Your task to perform on an android device: Go to CNN.com Image 0: 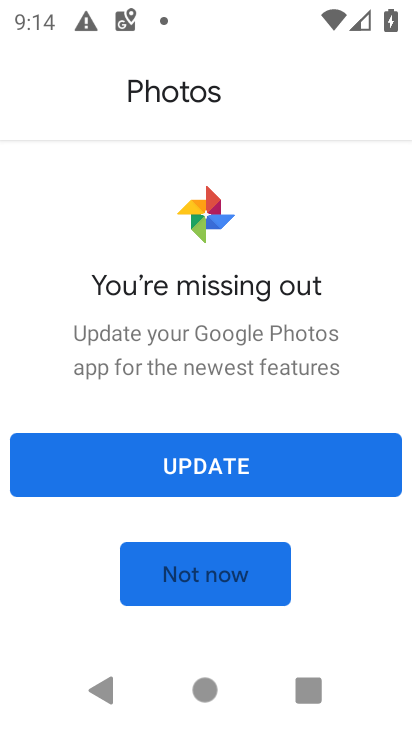
Step 0: press home button
Your task to perform on an android device: Go to CNN.com Image 1: 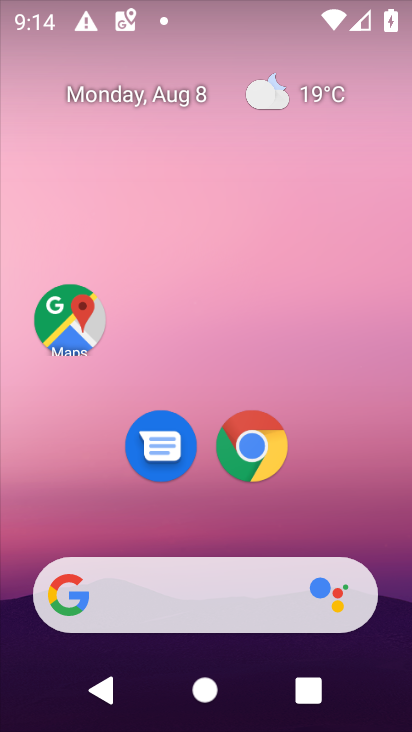
Step 1: click (253, 435)
Your task to perform on an android device: Go to CNN.com Image 2: 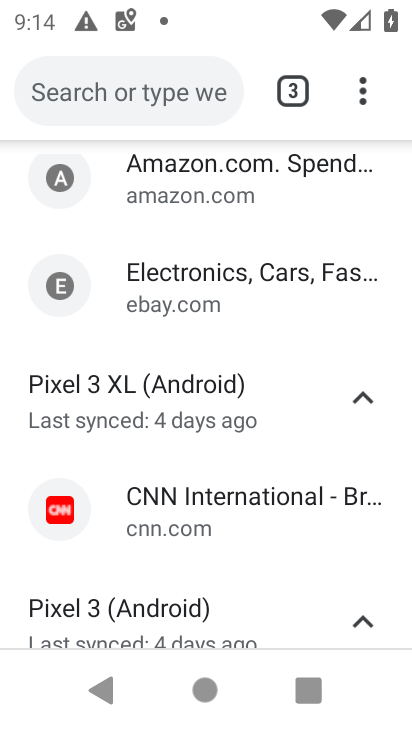
Step 2: click (141, 83)
Your task to perform on an android device: Go to CNN.com Image 3: 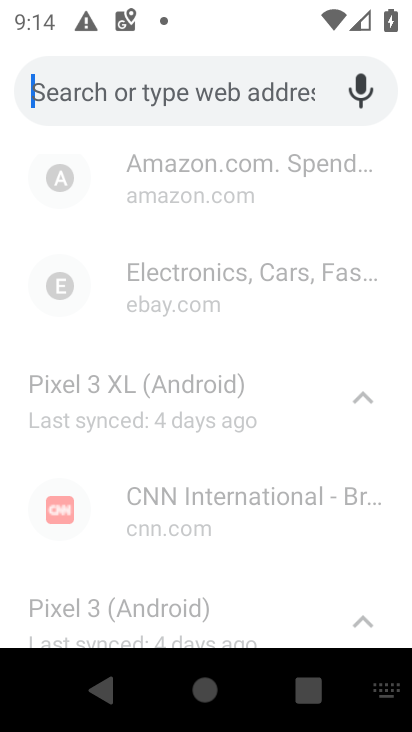
Step 3: type "cnn.com"
Your task to perform on an android device: Go to CNN.com Image 4: 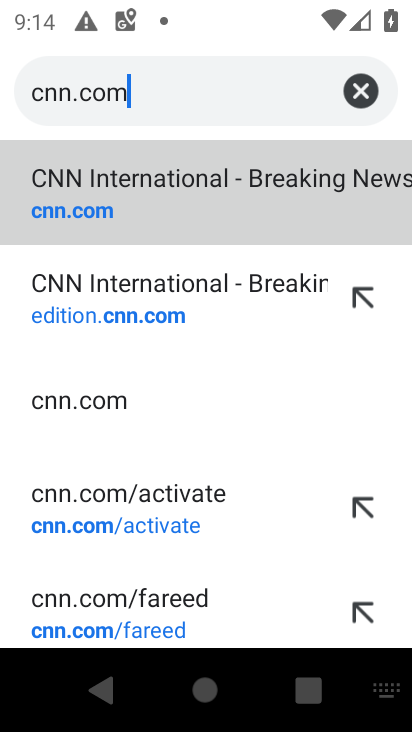
Step 4: click (66, 186)
Your task to perform on an android device: Go to CNN.com Image 5: 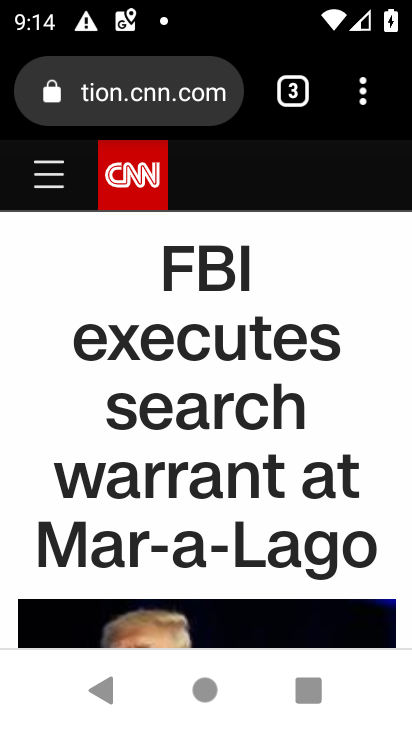
Step 5: task complete